Your task to perform on an android device: open sync settings in chrome Image 0: 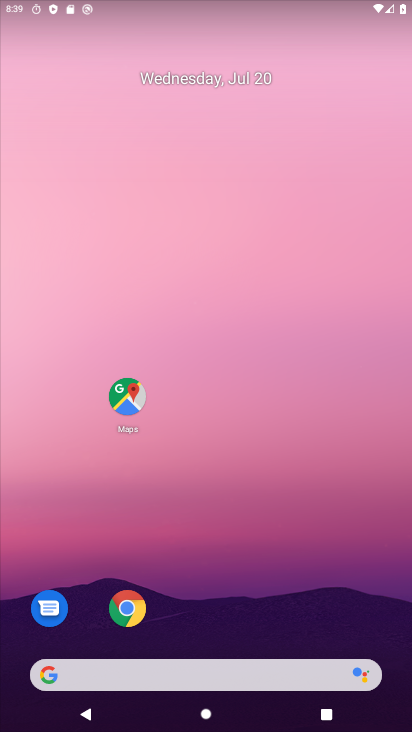
Step 0: drag from (222, 596) to (265, 135)
Your task to perform on an android device: open sync settings in chrome Image 1: 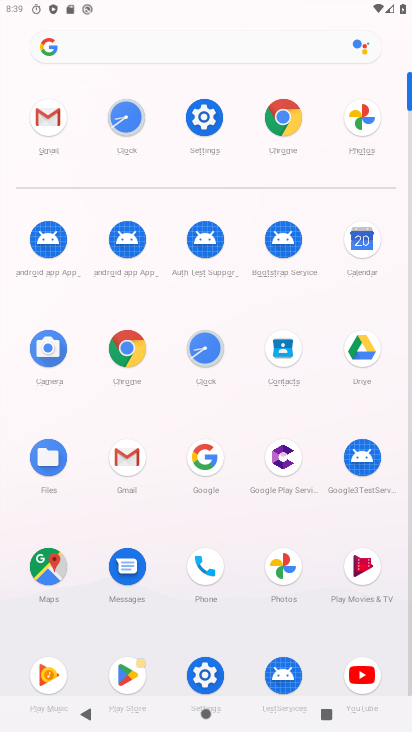
Step 1: click (132, 360)
Your task to perform on an android device: open sync settings in chrome Image 2: 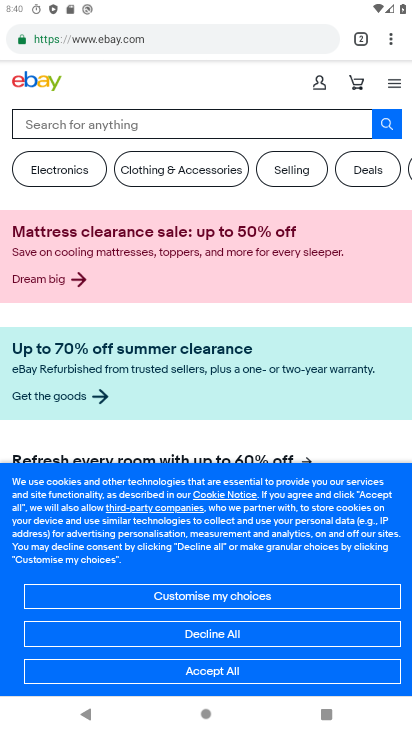
Step 2: click (391, 42)
Your task to perform on an android device: open sync settings in chrome Image 3: 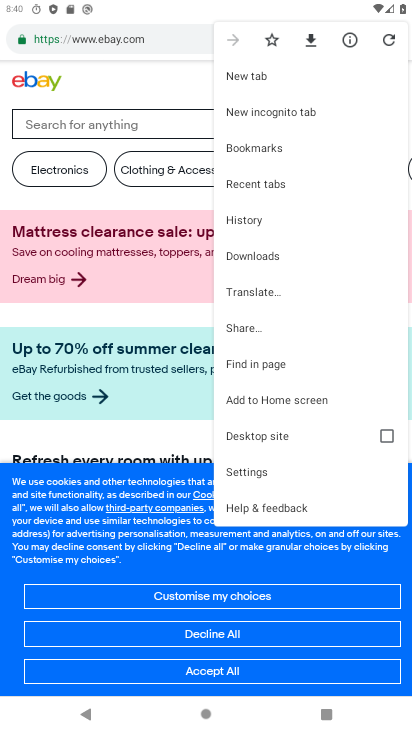
Step 3: click (249, 472)
Your task to perform on an android device: open sync settings in chrome Image 4: 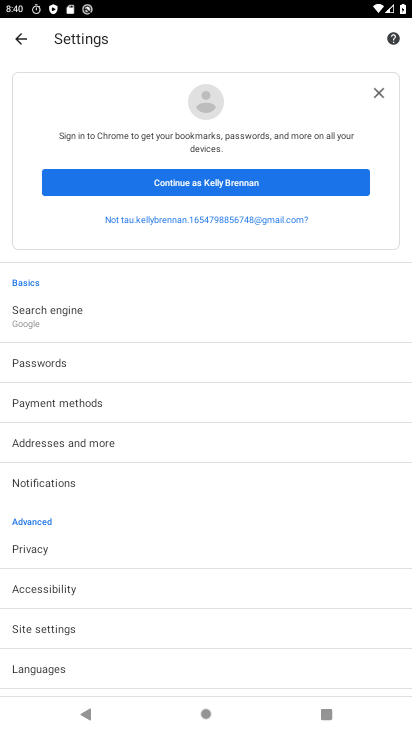
Step 4: click (288, 192)
Your task to perform on an android device: open sync settings in chrome Image 5: 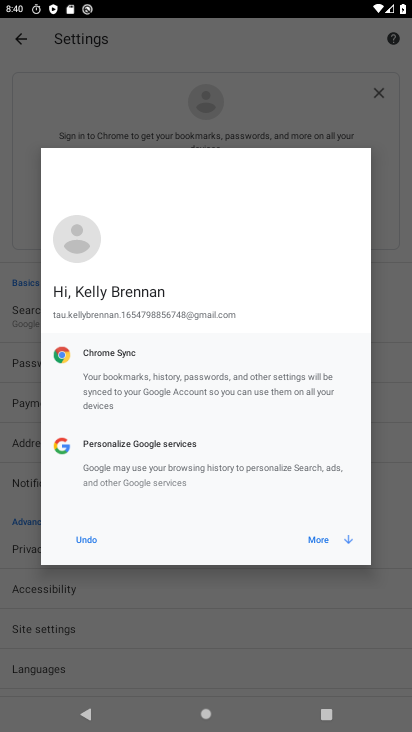
Step 5: click (315, 539)
Your task to perform on an android device: open sync settings in chrome Image 6: 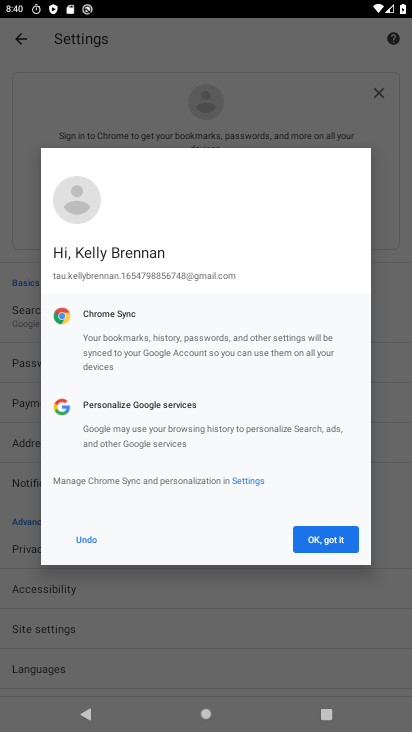
Step 6: click (315, 537)
Your task to perform on an android device: open sync settings in chrome Image 7: 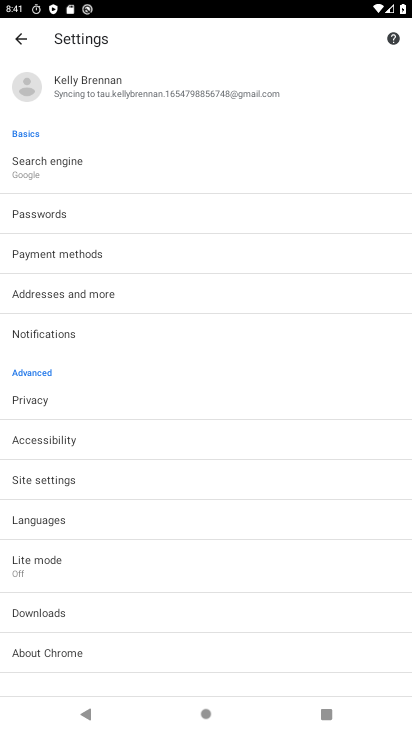
Step 7: click (192, 92)
Your task to perform on an android device: open sync settings in chrome Image 8: 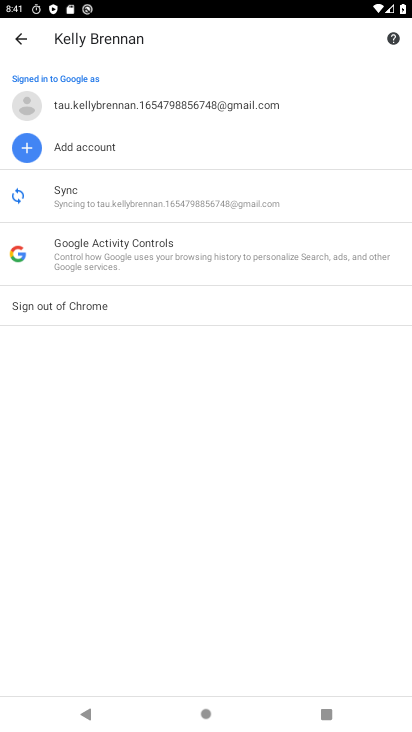
Step 8: click (161, 204)
Your task to perform on an android device: open sync settings in chrome Image 9: 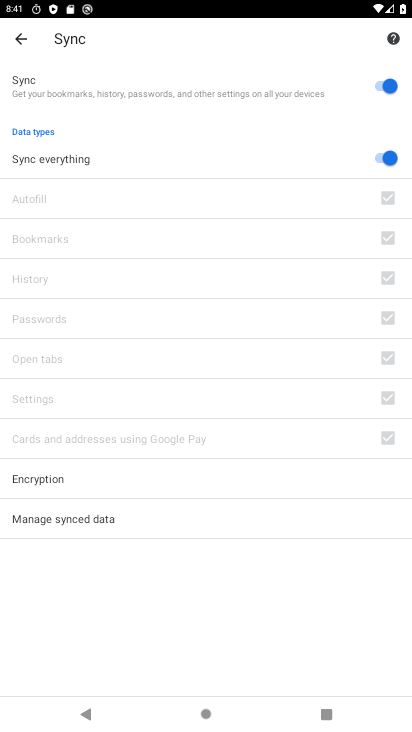
Step 9: task complete